Your task to perform on an android device: visit the assistant section in the google photos Image 0: 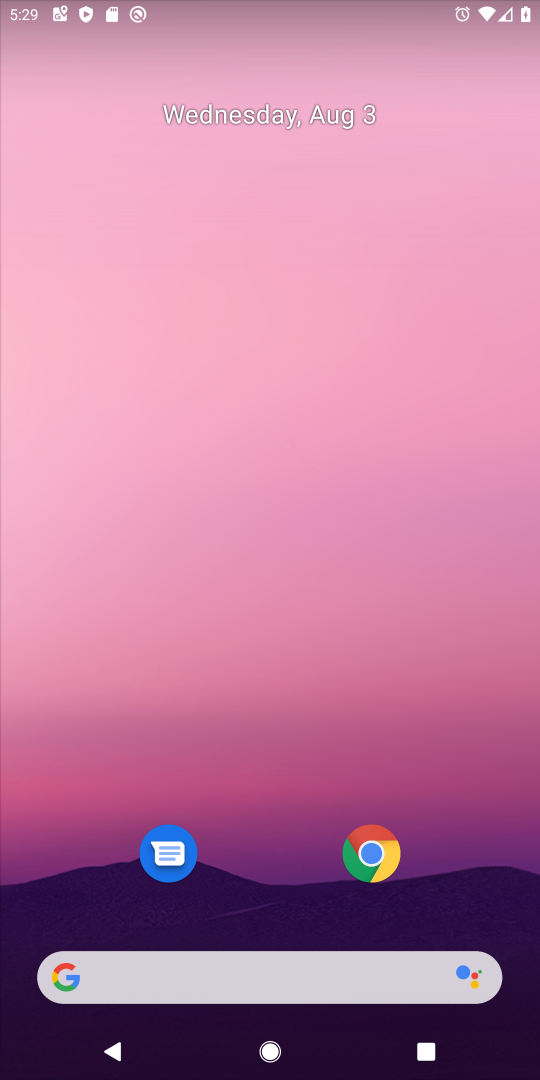
Step 0: drag from (495, 919) to (459, 150)
Your task to perform on an android device: visit the assistant section in the google photos Image 1: 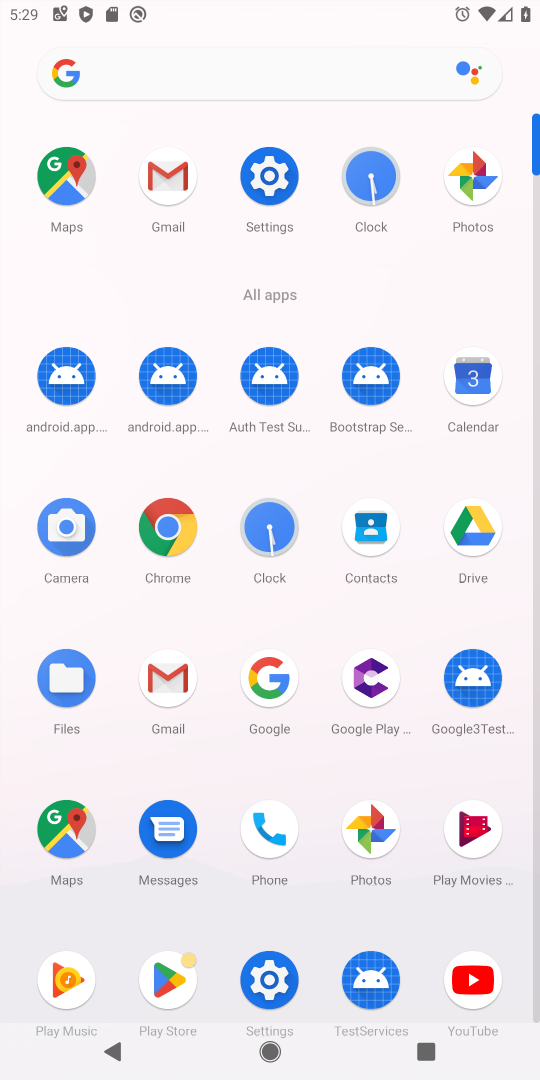
Step 1: click (365, 823)
Your task to perform on an android device: visit the assistant section in the google photos Image 2: 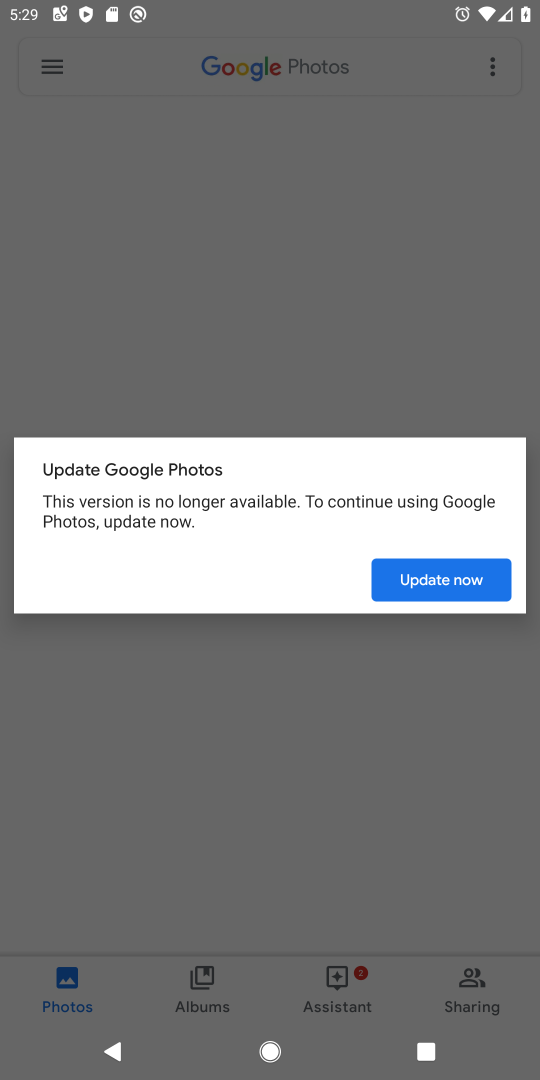
Step 2: click (473, 764)
Your task to perform on an android device: visit the assistant section in the google photos Image 3: 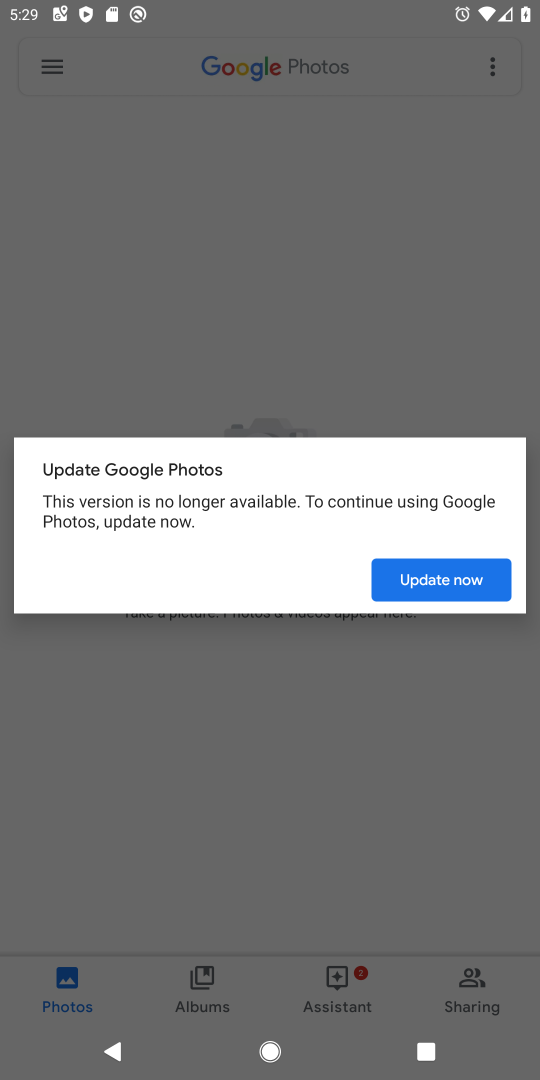
Step 3: click (413, 572)
Your task to perform on an android device: visit the assistant section in the google photos Image 4: 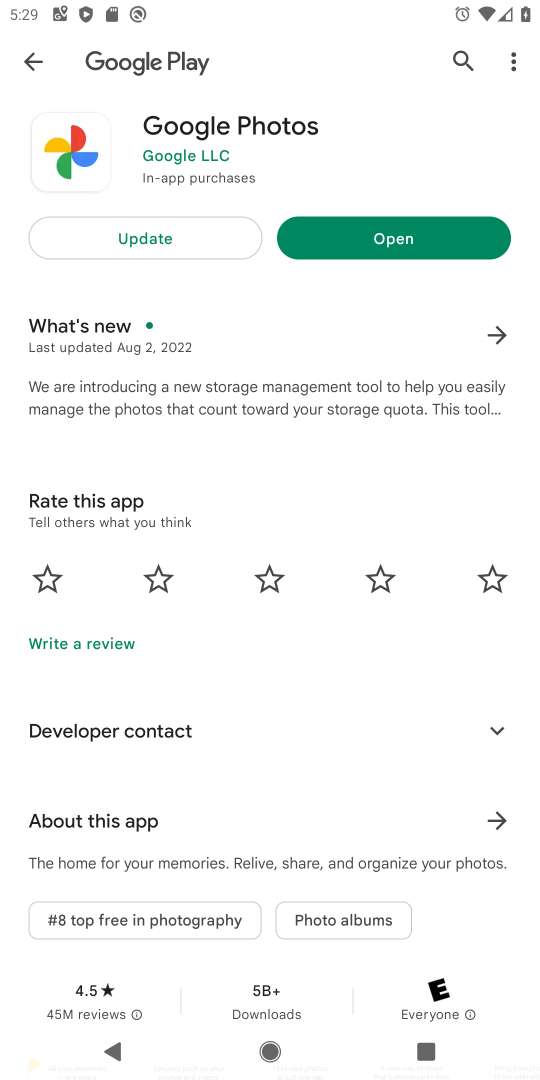
Step 4: click (435, 254)
Your task to perform on an android device: visit the assistant section in the google photos Image 5: 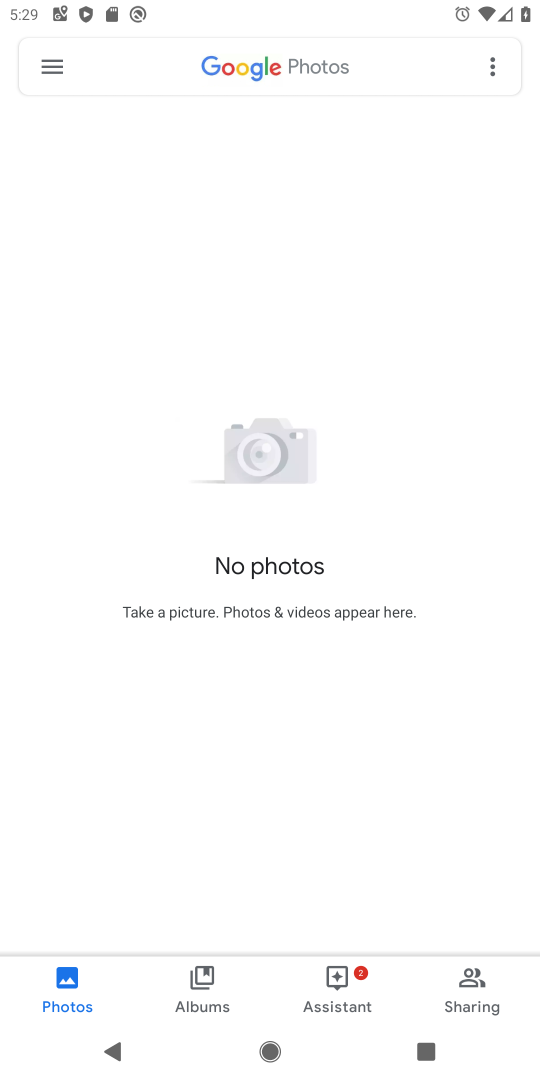
Step 5: click (337, 985)
Your task to perform on an android device: visit the assistant section in the google photos Image 6: 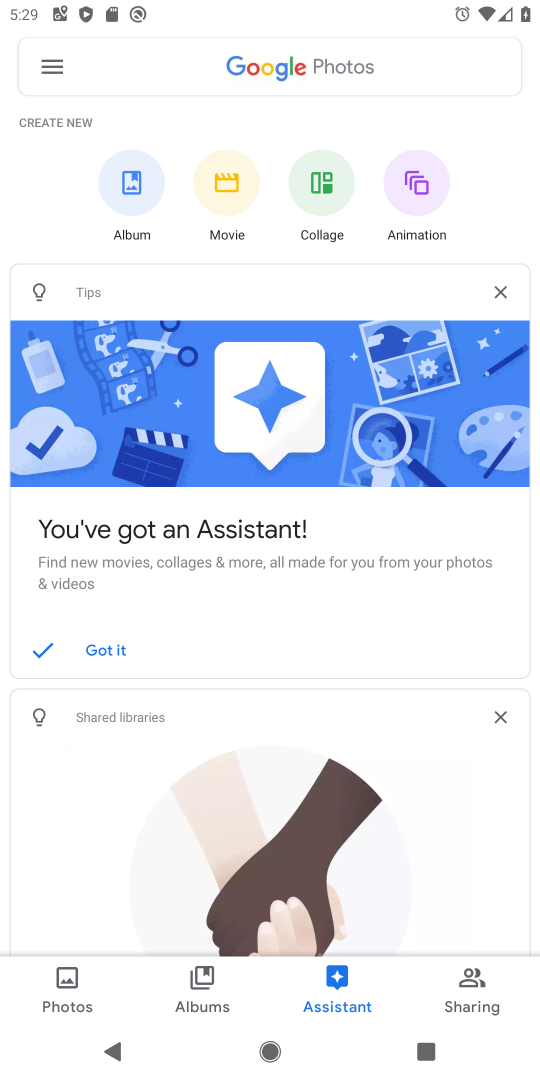
Step 6: task complete